Your task to perform on an android device: check data usage Image 0: 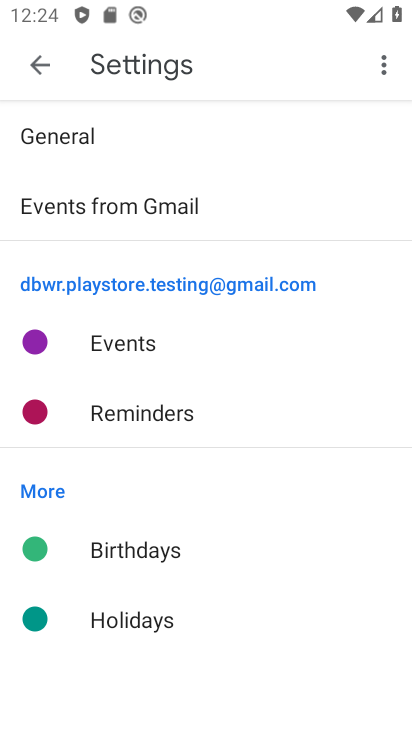
Step 0: press back button
Your task to perform on an android device: check data usage Image 1: 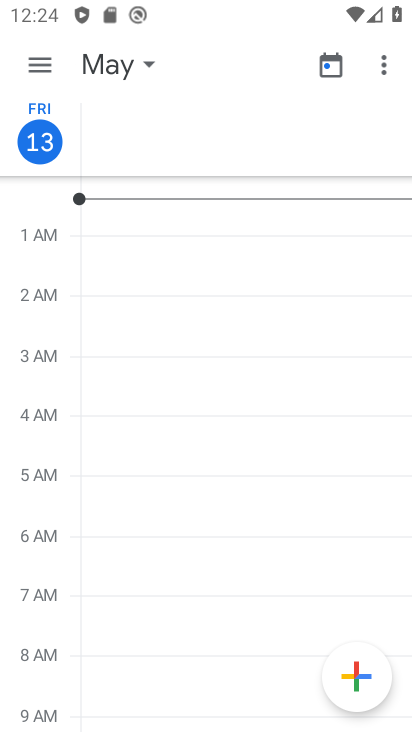
Step 1: press back button
Your task to perform on an android device: check data usage Image 2: 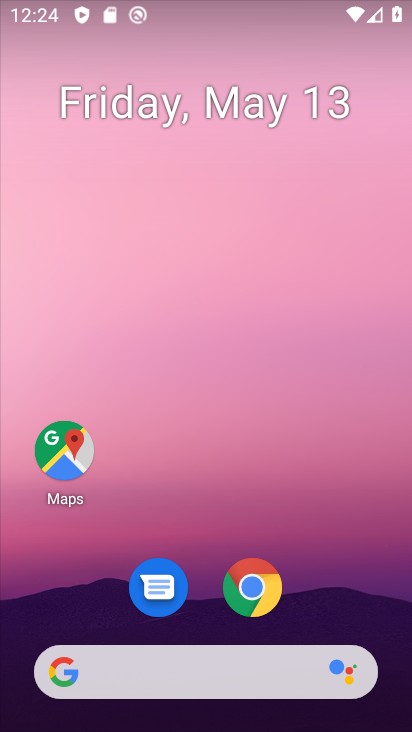
Step 2: drag from (157, 510) to (243, 62)
Your task to perform on an android device: check data usage Image 3: 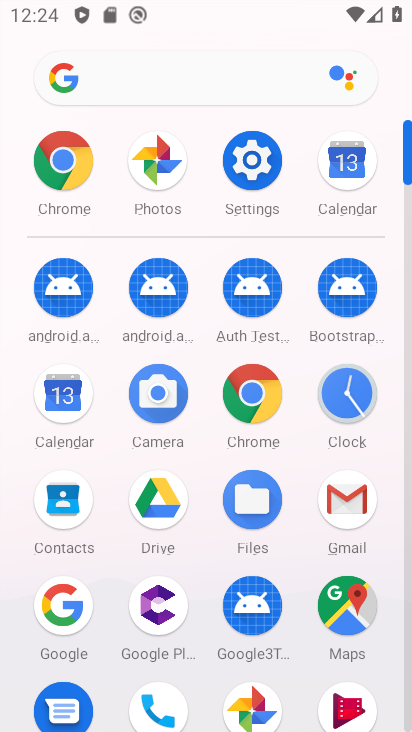
Step 3: click (247, 159)
Your task to perform on an android device: check data usage Image 4: 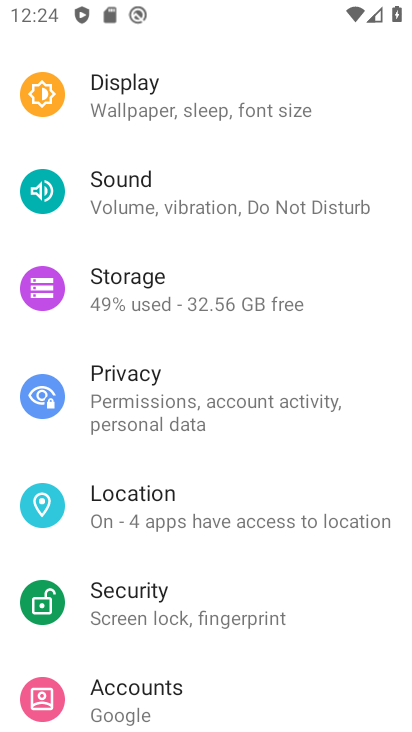
Step 4: drag from (225, 166) to (177, 665)
Your task to perform on an android device: check data usage Image 5: 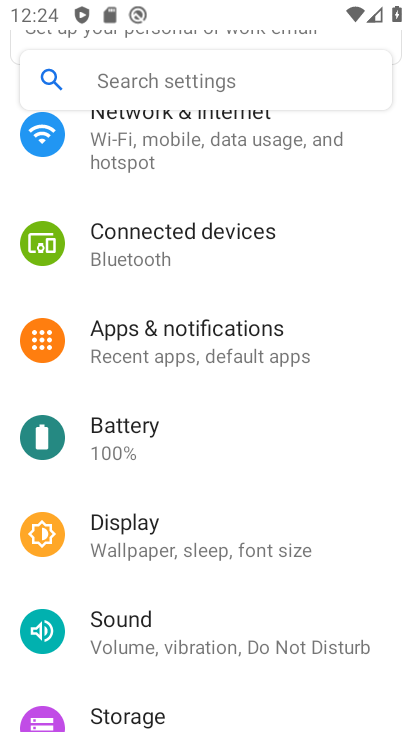
Step 5: click (195, 149)
Your task to perform on an android device: check data usage Image 6: 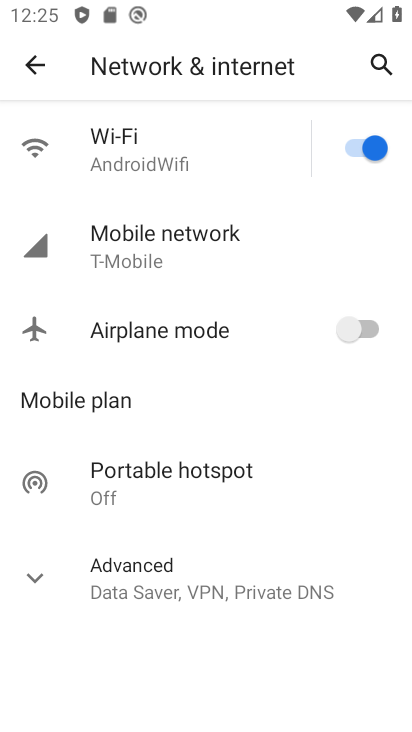
Step 6: click (165, 259)
Your task to perform on an android device: check data usage Image 7: 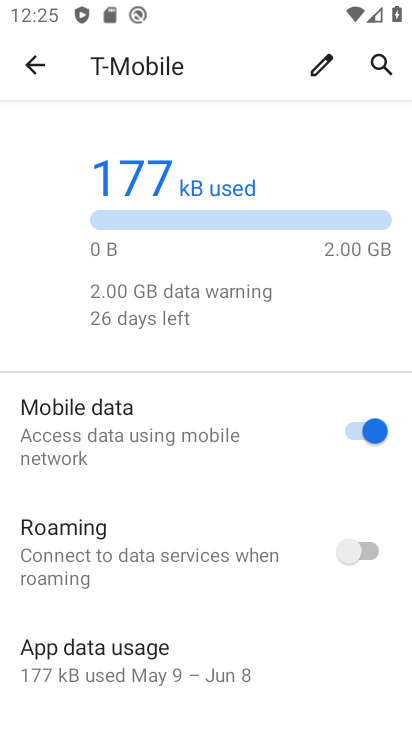
Step 7: click (138, 658)
Your task to perform on an android device: check data usage Image 8: 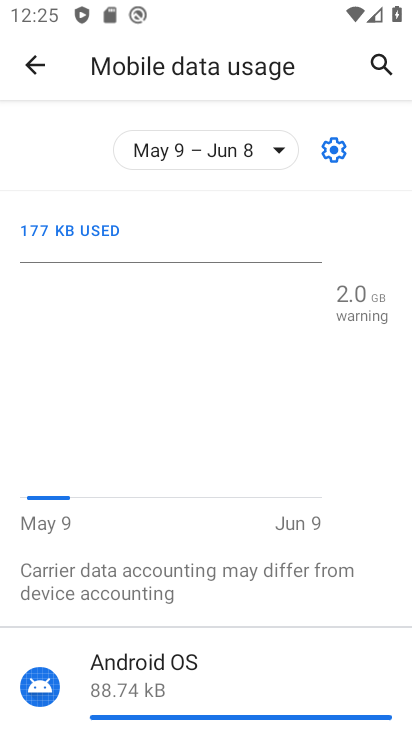
Step 8: task complete